Your task to perform on an android device: change text size in settings app Image 0: 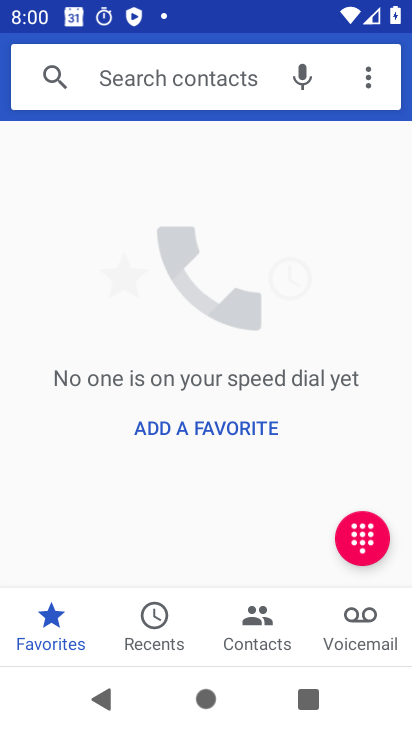
Step 0: press home button
Your task to perform on an android device: change text size in settings app Image 1: 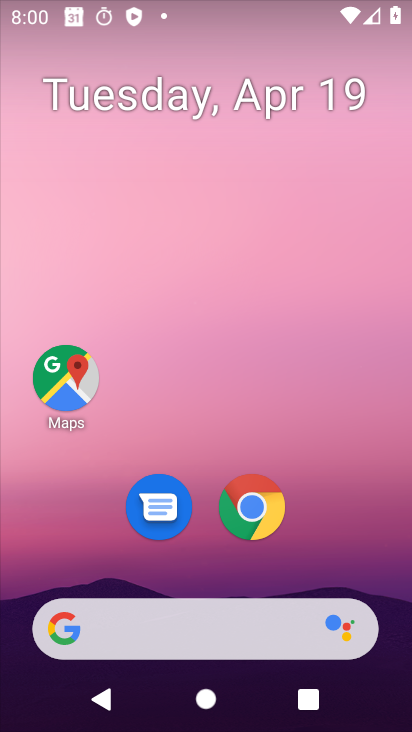
Step 1: drag from (309, 524) to (237, 53)
Your task to perform on an android device: change text size in settings app Image 2: 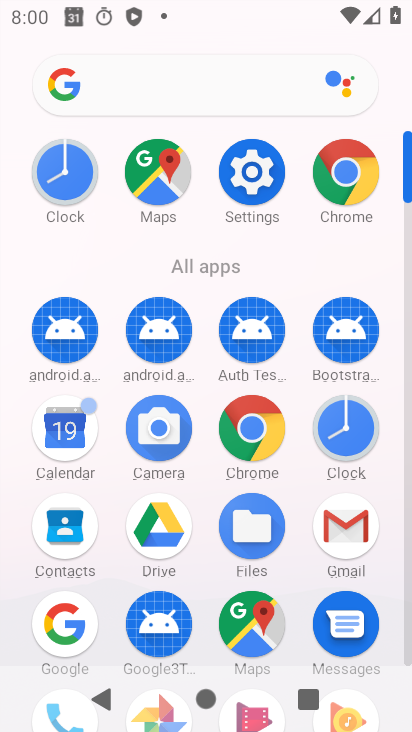
Step 2: click (256, 175)
Your task to perform on an android device: change text size in settings app Image 3: 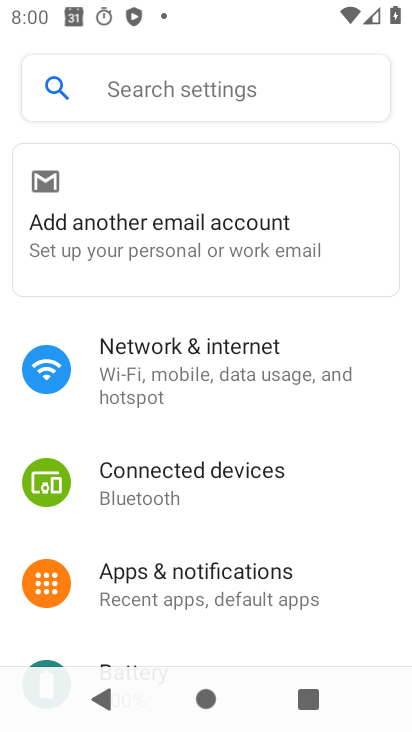
Step 3: drag from (183, 643) to (168, 415)
Your task to perform on an android device: change text size in settings app Image 4: 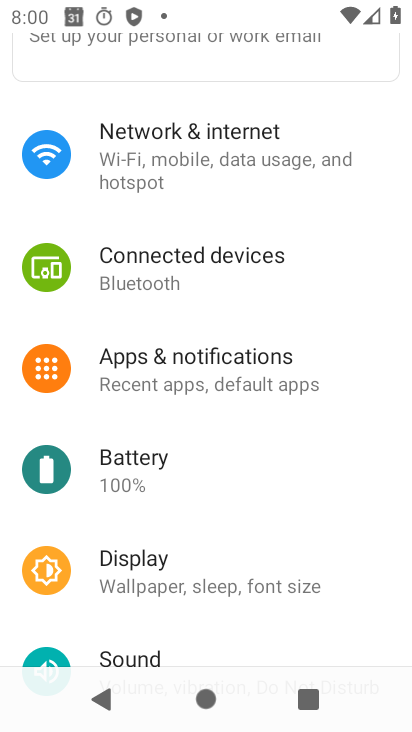
Step 4: click (152, 582)
Your task to perform on an android device: change text size in settings app Image 5: 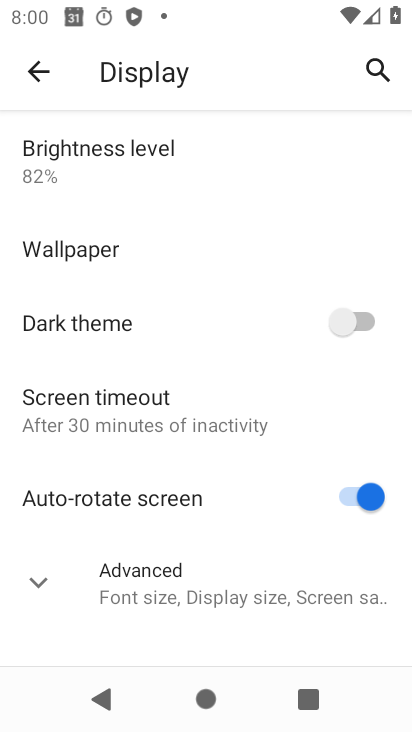
Step 5: click (152, 581)
Your task to perform on an android device: change text size in settings app Image 6: 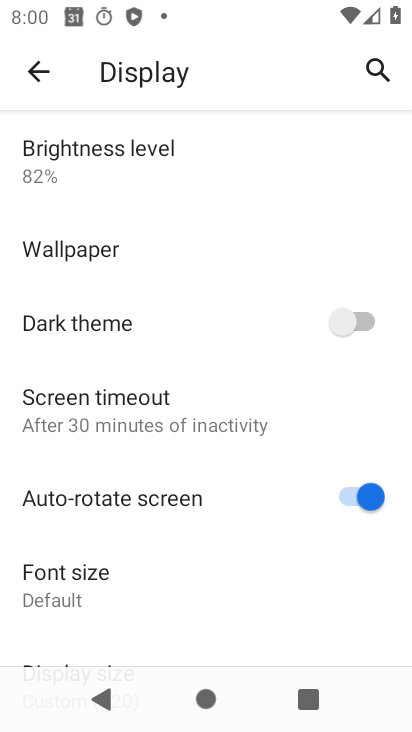
Step 6: click (60, 589)
Your task to perform on an android device: change text size in settings app Image 7: 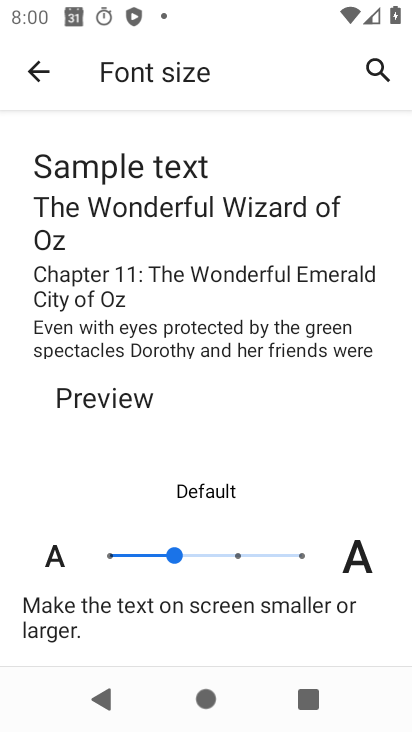
Step 7: click (112, 554)
Your task to perform on an android device: change text size in settings app Image 8: 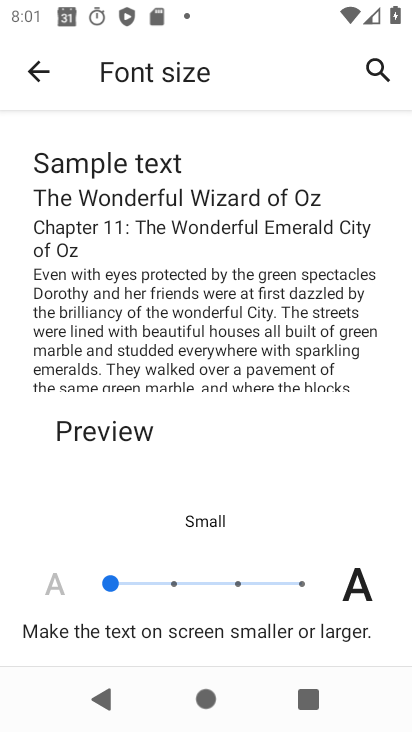
Step 8: task complete